Your task to perform on an android device: Open Maps and search for coffee Image 0: 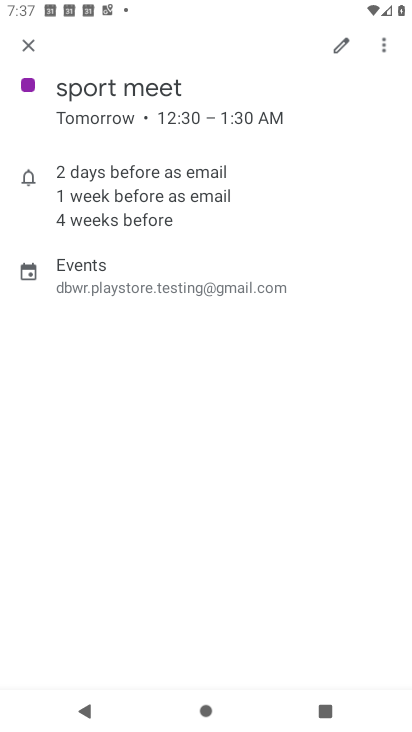
Step 0: press home button
Your task to perform on an android device: Open Maps and search for coffee Image 1: 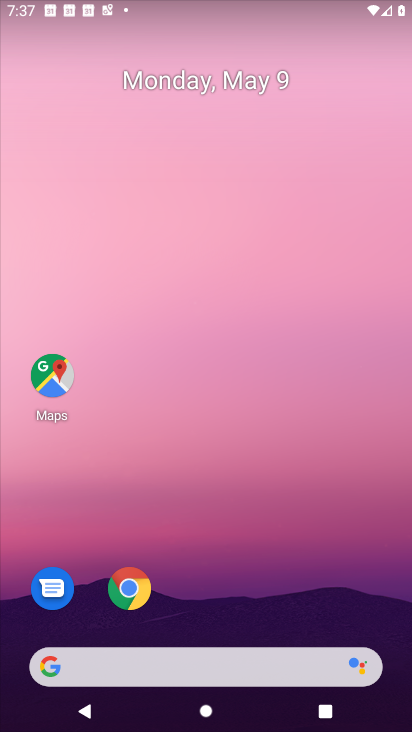
Step 1: click (53, 378)
Your task to perform on an android device: Open Maps and search for coffee Image 2: 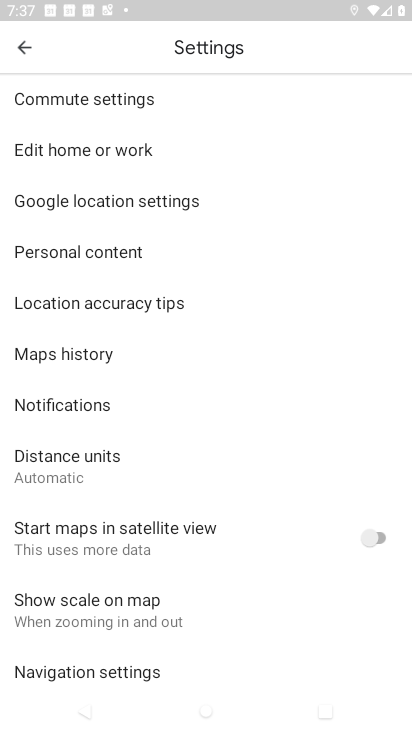
Step 2: click (27, 41)
Your task to perform on an android device: Open Maps and search for coffee Image 3: 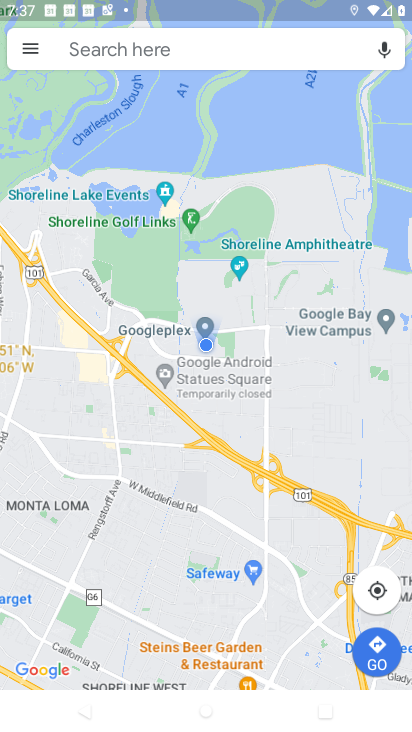
Step 3: click (167, 49)
Your task to perform on an android device: Open Maps and search for coffee Image 4: 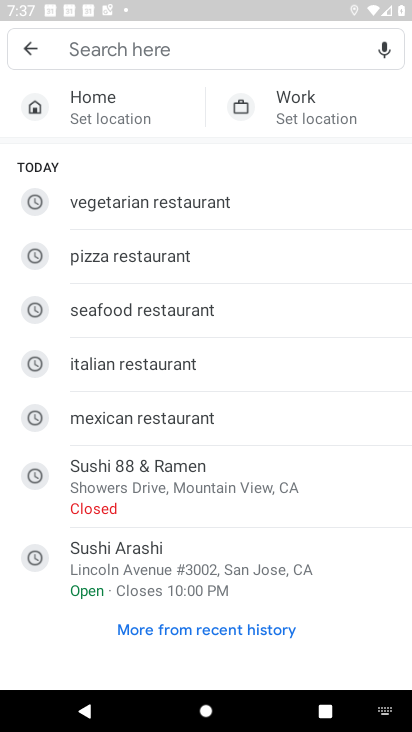
Step 4: type "coffee"
Your task to perform on an android device: Open Maps and search for coffee Image 5: 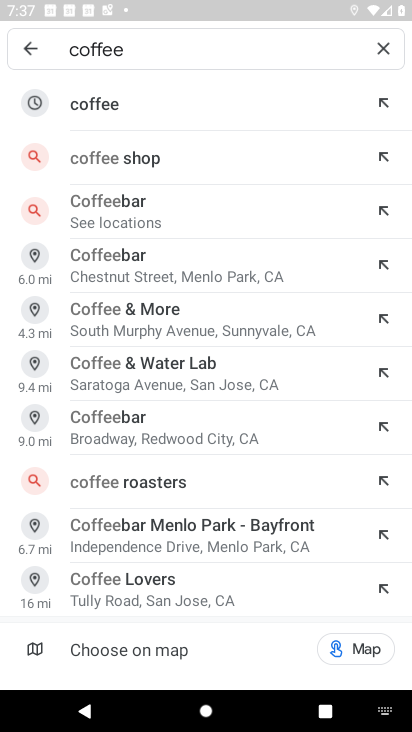
Step 5: click (118, 110)
Your task to perform on an android device: Open Maps and search for coffee Image 6: 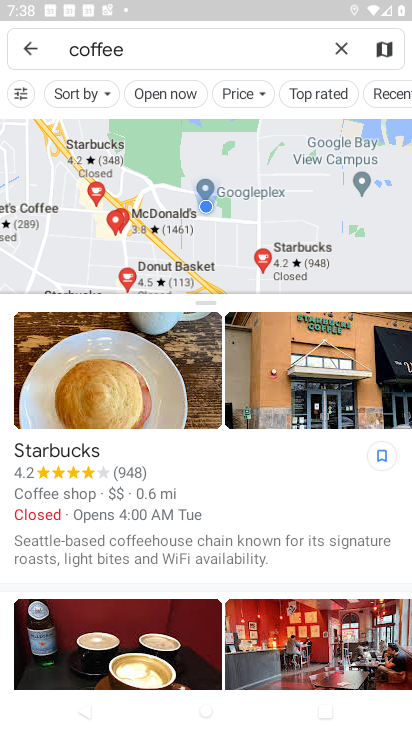
Step 6: task complete